Your task to perform on an android device: open app "Paramount+ | Peak Streaming" (install if not already installed) and enter user name: "fostered@yahoo.com" and password: "strong" Image 0: 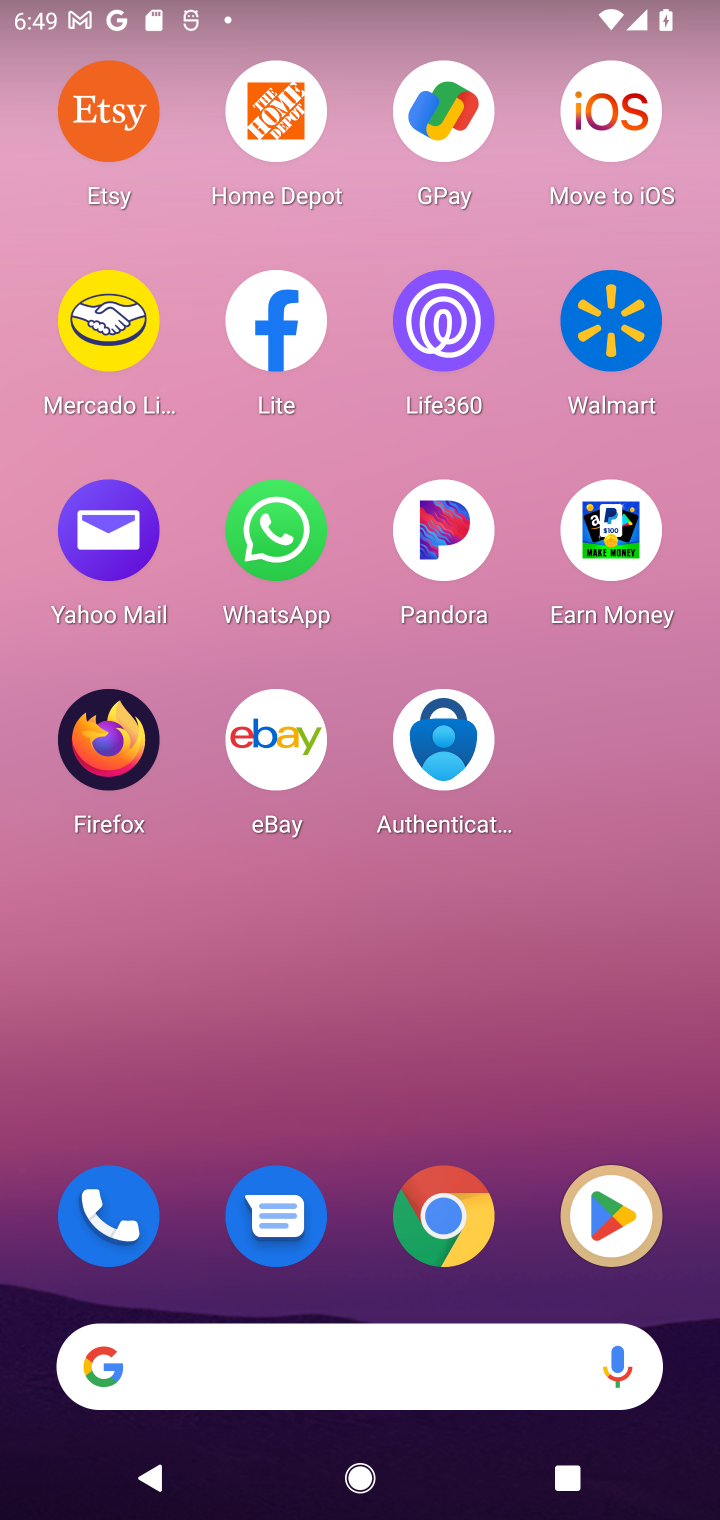
Step 0: drag from (506, 1109) to (454, 327)
Your task to perform on an android device: open app "Paramount+ | Peak Streaming" (install if not already installed) and enter user name: "fostered@yahoo.com" and password: "strong" Image 1: 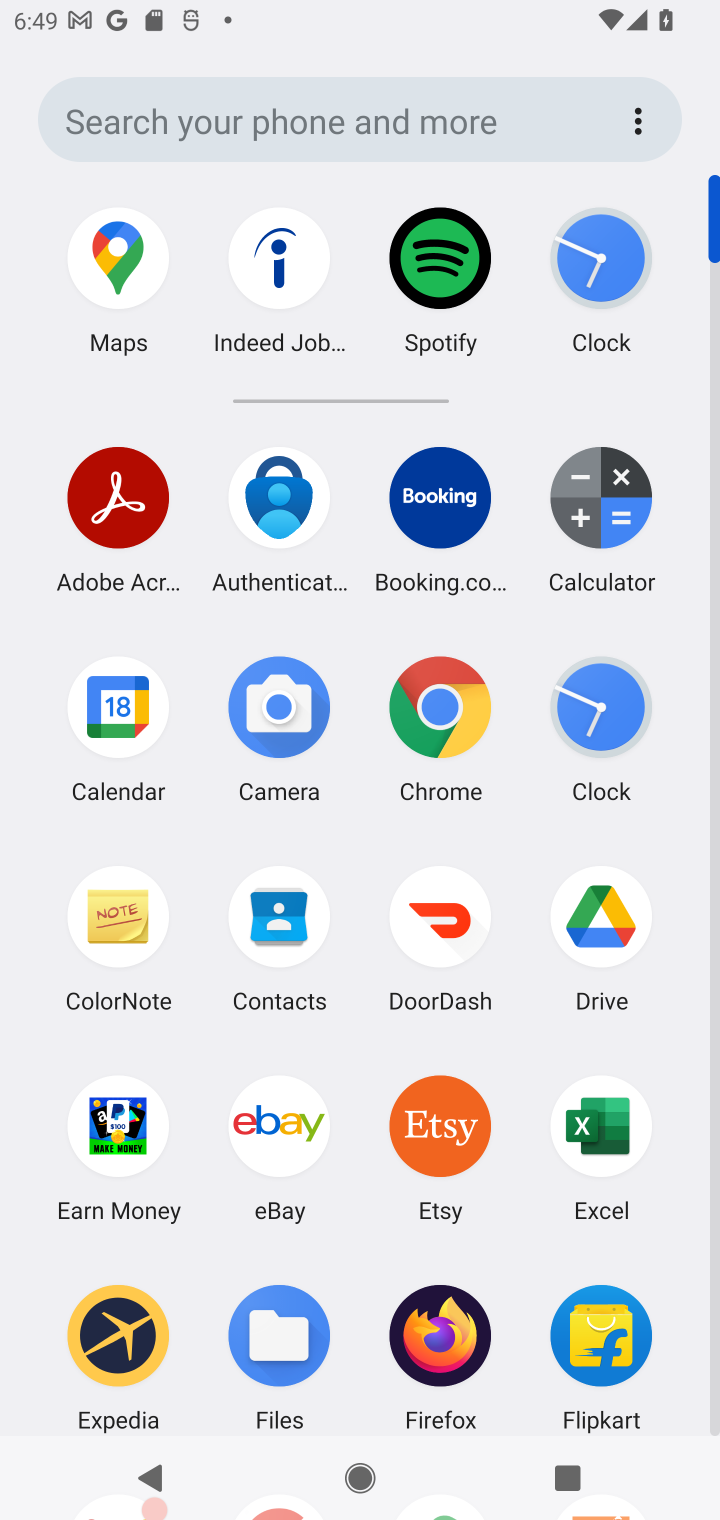
Step 1: drag from (535, 1241) to (470, 556)
Your task to perform on an android device: open app "Paramount+ | Peak Streaming" (install if not already installed) and enter user name: "fostered@yahoo.com" and password: "strong" Image 2: 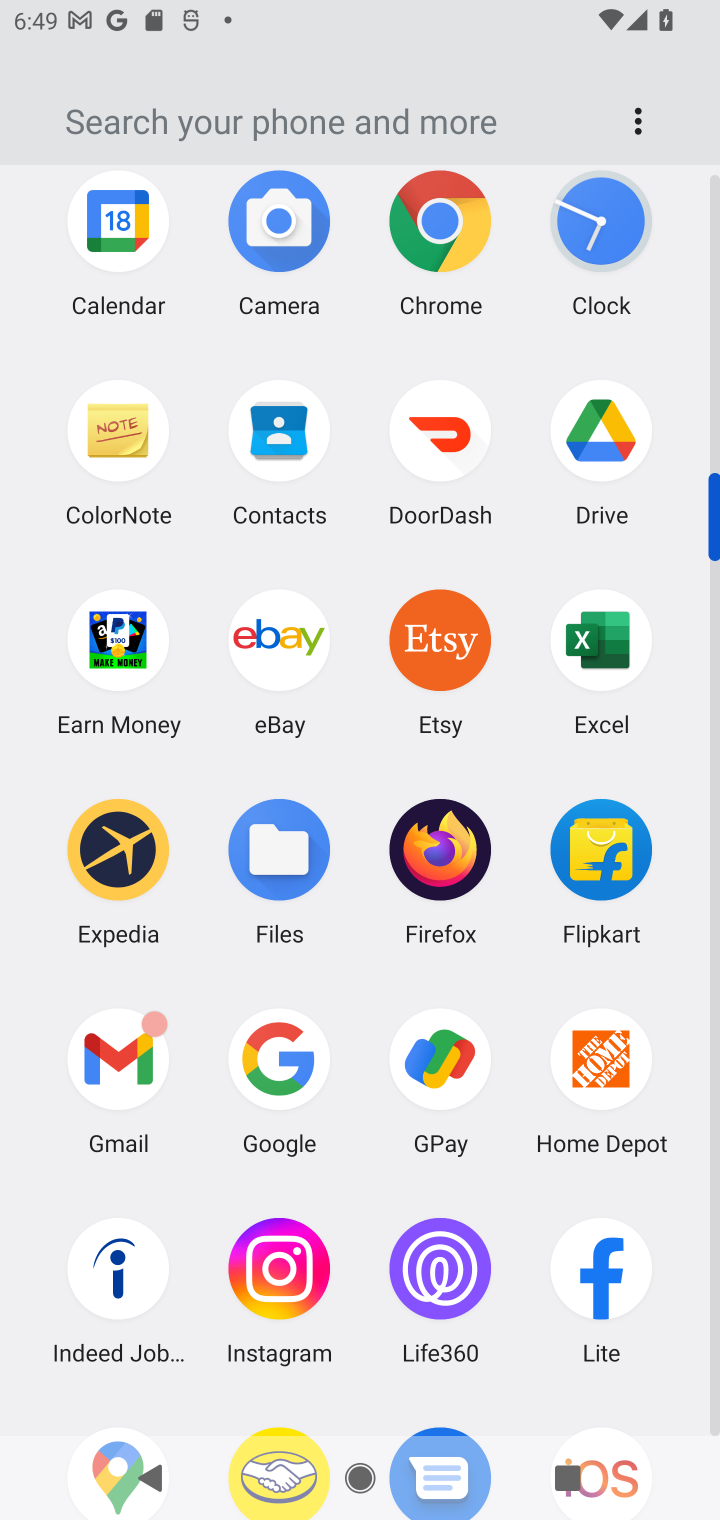
Step 2: drag from (529, 1296) to (519, 636)
Your task to perform on an android device: open app "Paramount+ | Peak Streaming" (install if not already installed) and enter user name: "fostered@yahoo.com" and password: "strong" Image 3: 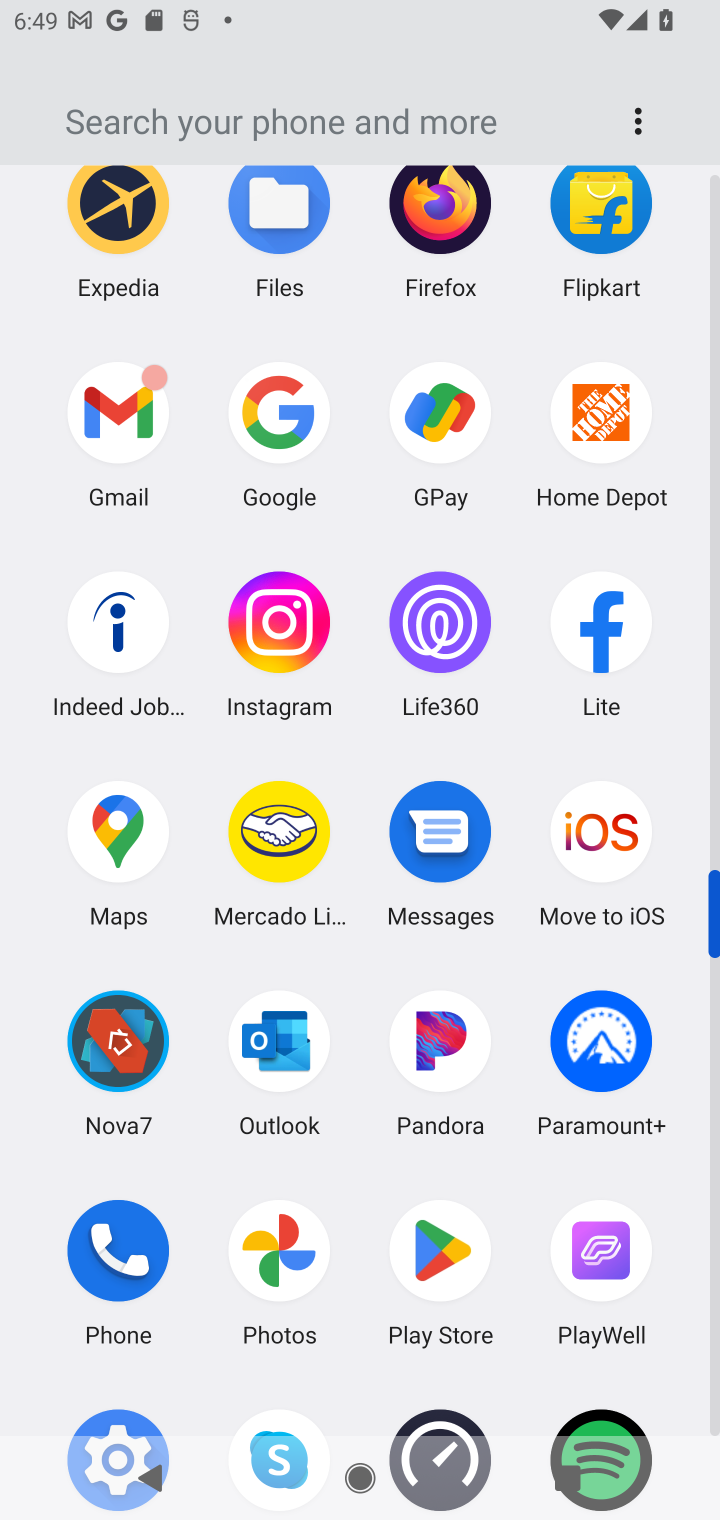
Step 3: click (589, 1059)
Your task to perform on an android device: open app "Paramount+ | Peak Streaming" (install if not already installed) and enter user name: "fostered@yahoo.com" and password: "strong" Image 4: 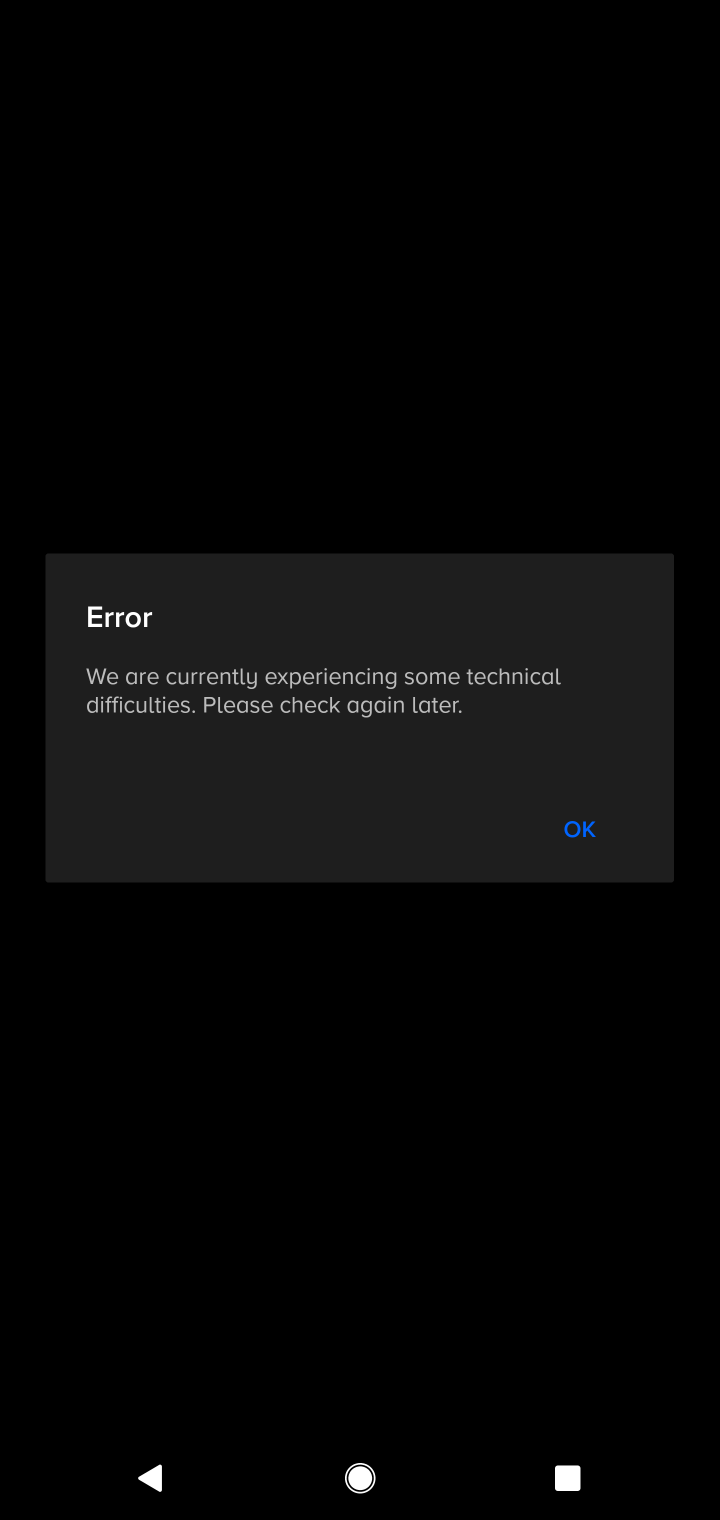
Step 4: click (575, 837)
Your task to perform on an android device: open app "Paramount+ | Peak Streaming" (install if not already installed) and enter user name: "fostered@yahoo.com" and password: "strong" Image 5: 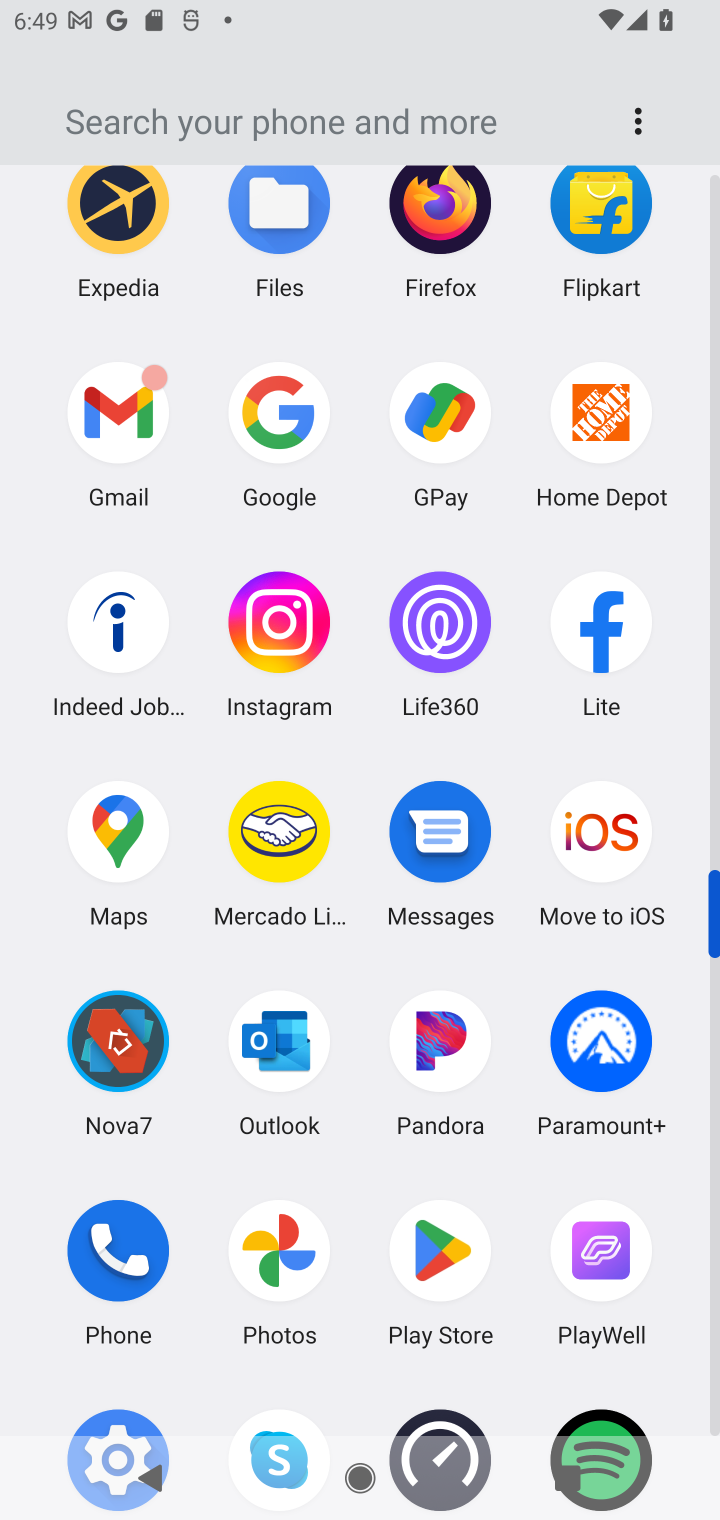
Step 5: task complete